Your task to perform on an android device: open chrome privacy settings Image 0: 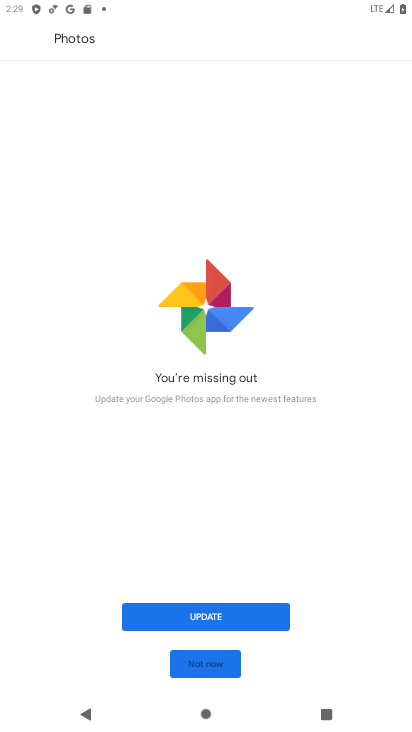
Step 0: press back button
Your task to perform on an android device: open chrome privacy settings Image 1: 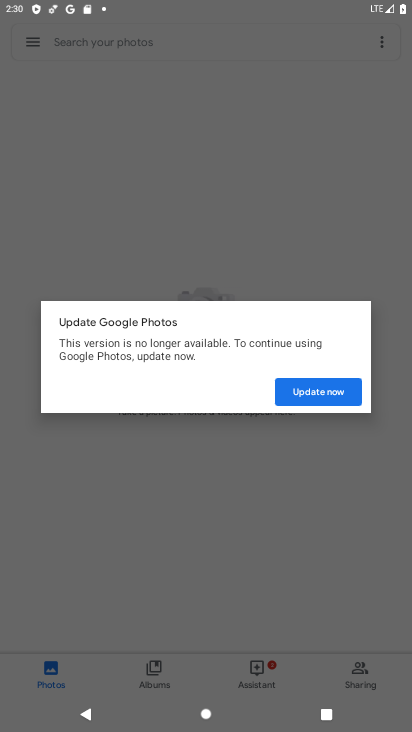
Step 1: press back button
Your task to perform on an android device: open chrome privacy settings Image 2: 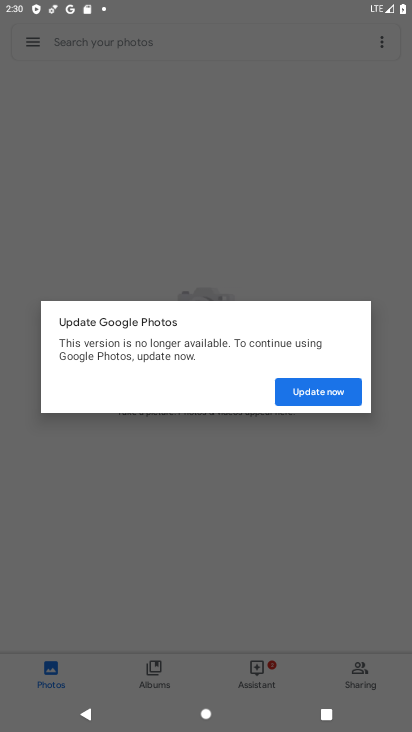
Step 2: press home button
Your task to perform on an android device: open chrome privacy settings Image 3: 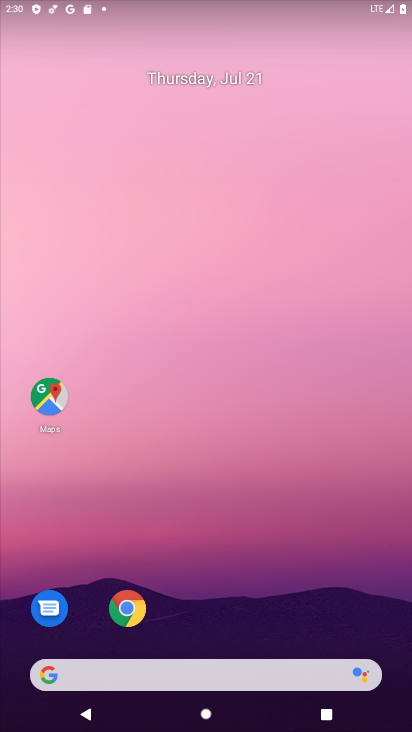
Step 3: drag from (203, 652) to (196, 60)
Your task to perform on an android device: open chrome privacy settings Image 4: 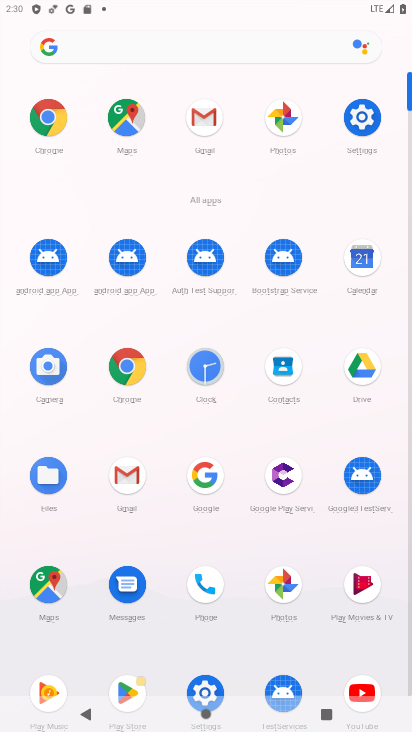
Step 4: click (121, 363)
Your task to perform on an android device: open chrome privacy settings Image 5: 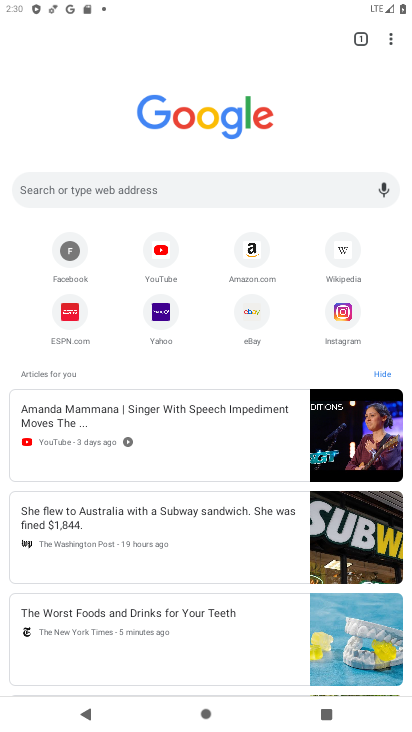
Step 5: drag from (391, 44) to (243, 379)
Your task to perform on an android device: open chrome privacy settings Image 6: 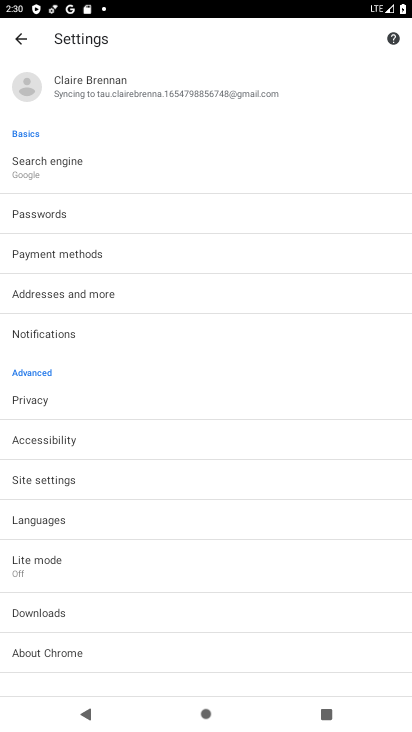
Step 6: click (29, 400)
Your task to perform on an android device: open chrome privacy settings Image 7: 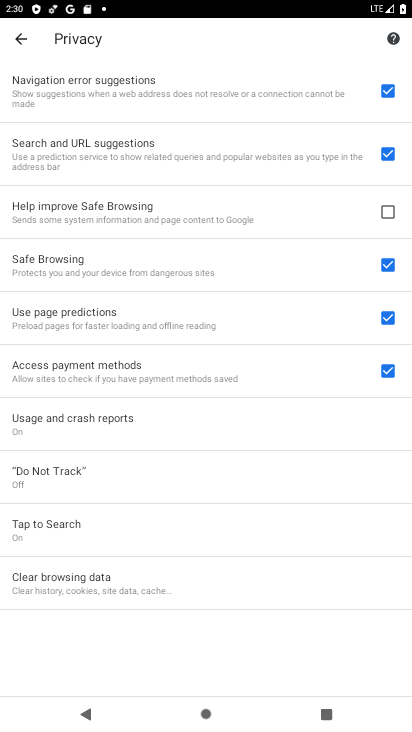
Step 7: task complete